Your task to perform on an android device: uninstall "NewsBreak: Local News & Alerts" Image 0: 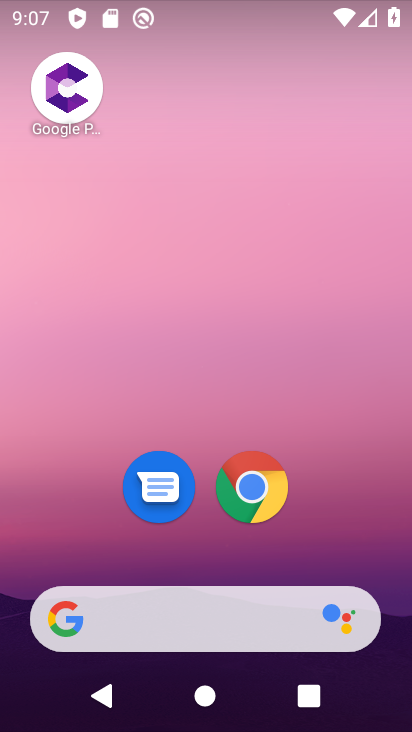
Step 0: drag from (226, 450) to (144, 0)
Your task to perform on an android device: uninstall "NewsBreak: Local News & Alerts" Image 1: 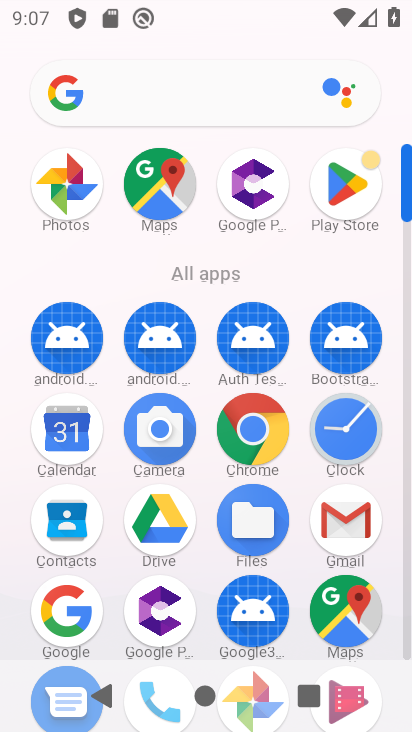
Step 1: click (362, 197)
Your task to perform on an android device: uninstall "NewsBreak: Local News & Alerts" Image 2: 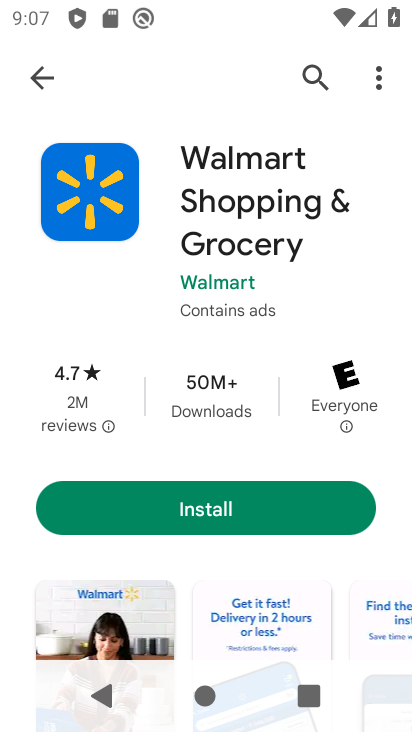
Step 2: click (318, 70)
Your task to perform on an android device: uninstall "NewsBreak: Local News & Alerts" Image 3: 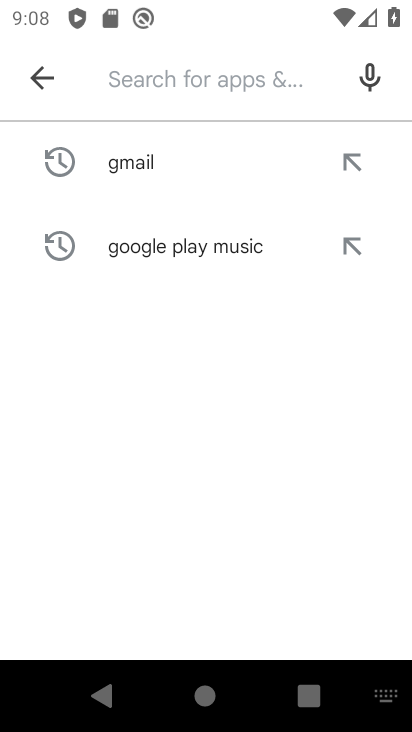
Step 3: type "NewsBreak: ;ocall news"
Your task to perform on an android device: uninstall "NewsBreak: Local News & Alerts" Image 4: 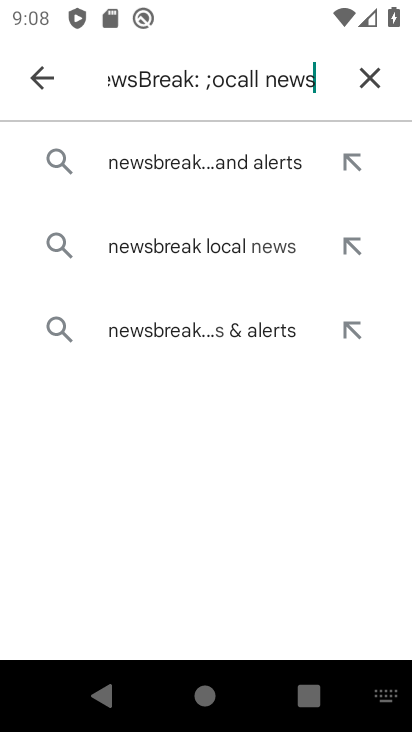
Step 4: click (228, 162)
Your task to perform on an android device: uninstall "NewsBreak: Local News & Alerts" Image 5: 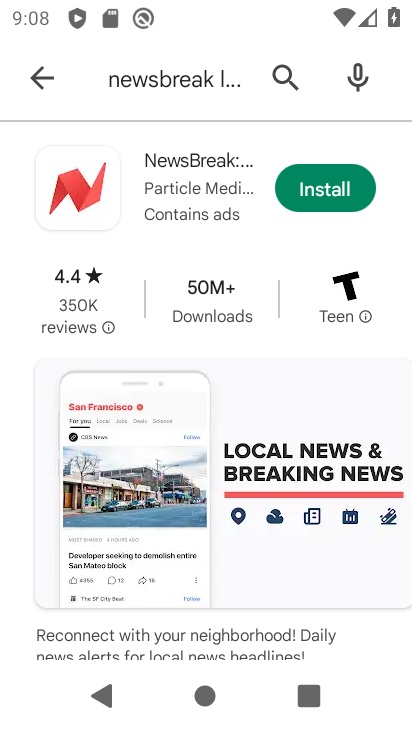
Step 5: task complete